Your task to perform on an android device: allow notifications from all sites in the chrome app Image 0: 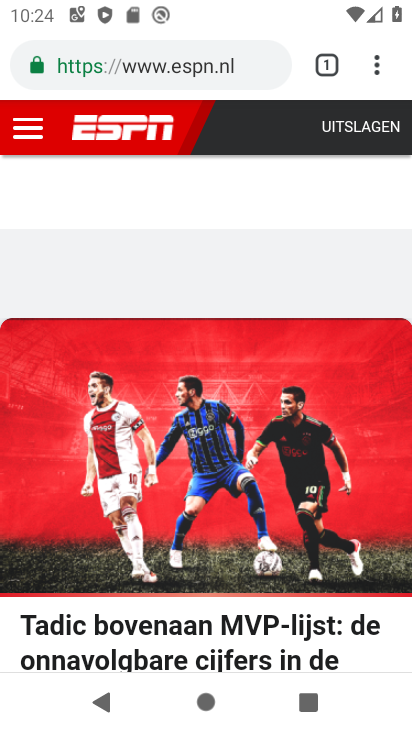
Step 0: press home button
Your task to perform on an android device: allow notifications from all sites in the chrome app Image 1: 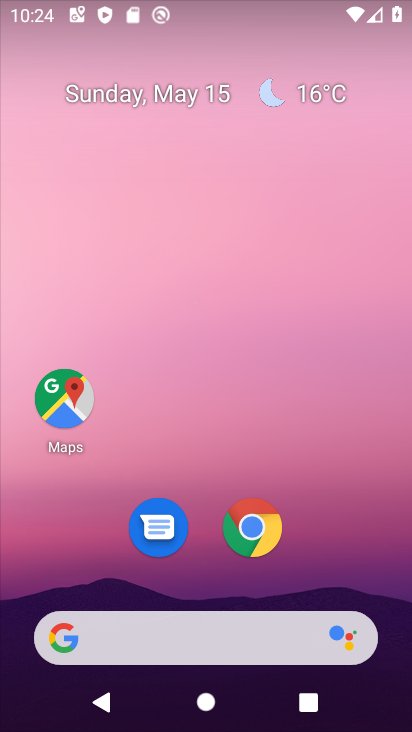
Step 1: click (264, 548)
Your task to perform on an android device: allow notifications from all sites in the chrome app Image 2: 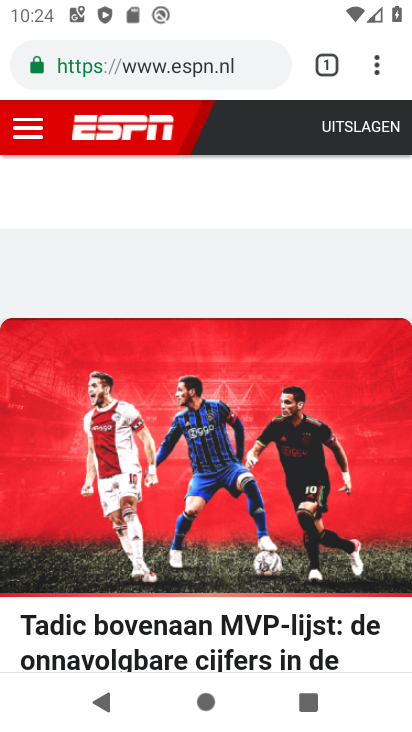
Step 2: click (376, 69)
Your task to perform on an android device: allow notifications from all sites in the chrome app Image 3: 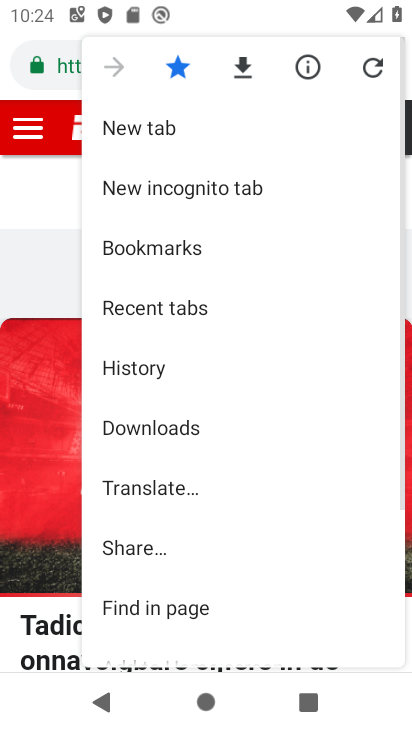
Step 3: drag from (227, 537) to (215, 120)
Your task to perform on an android device: allow notifications from all sites in the chrome app Image 4: 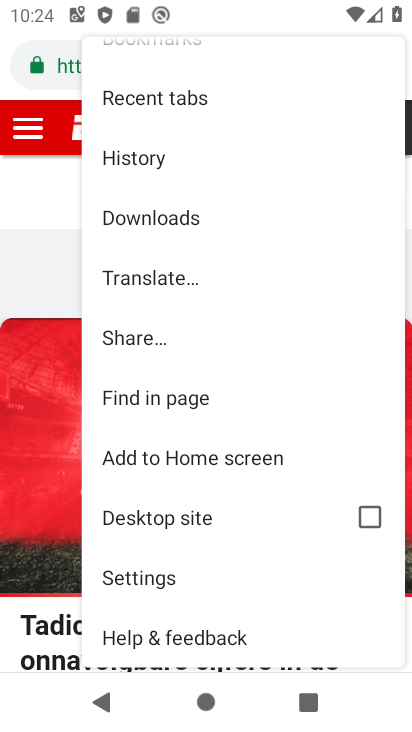
Step 4: click (154, 575)
Your task to perform on an android device: allow notifications from all sites in the chrome app Image 5: 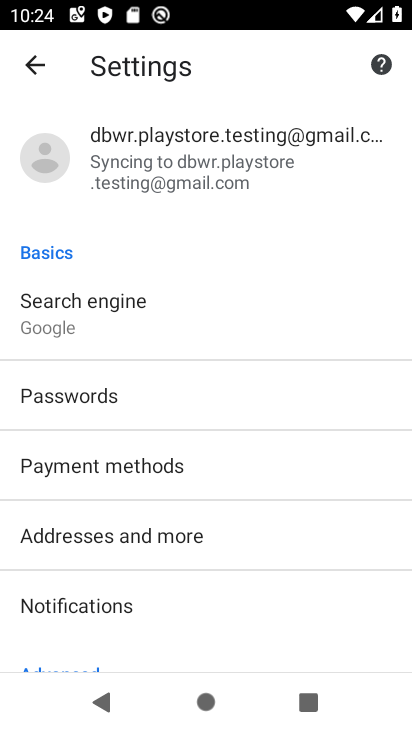
Step 5: drag from (218, 574) to (235, 226)
Your task to perform on an android device: allow notifications from all sites in the chrome app Image 6: 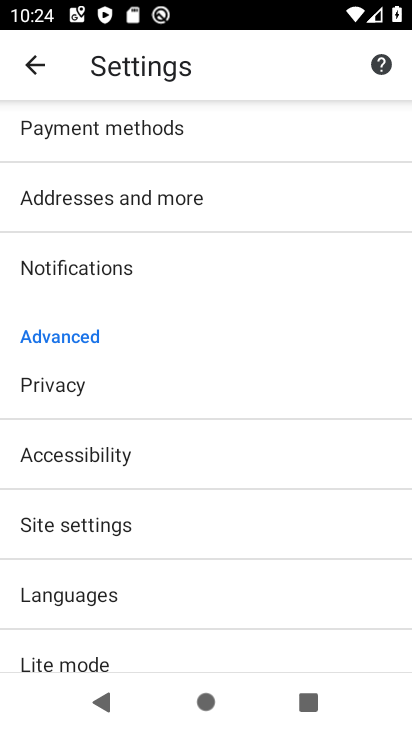
Step 6: click (85, 524)
Your task to perform on an android device: allow notifications from all sites in the chrome app Image 7: 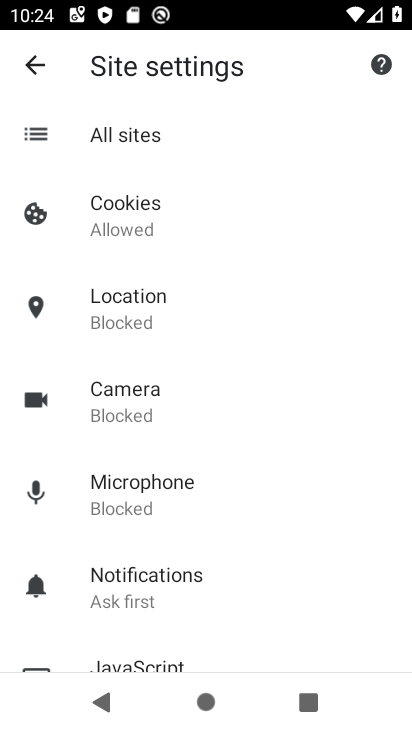
Step 7: drag from (277, 545) to (274, 239)
Your task to perform on an android device: allow notifications from all sites in the chrome app Image 8: 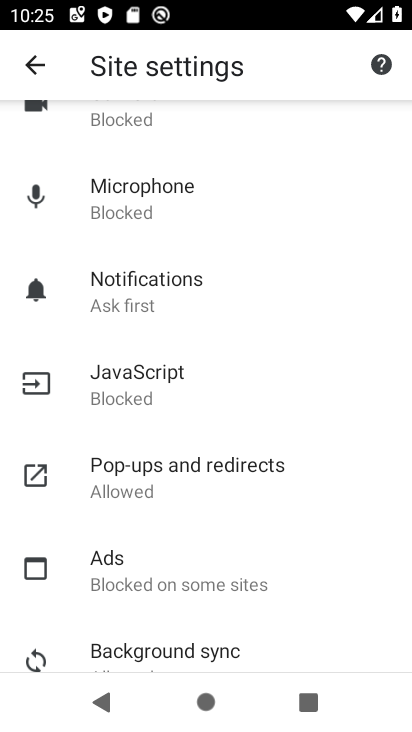
Step 8: click (112, 307)
Your task to perform on an android device: allow notifications from all sites in the chrome app Image 9: 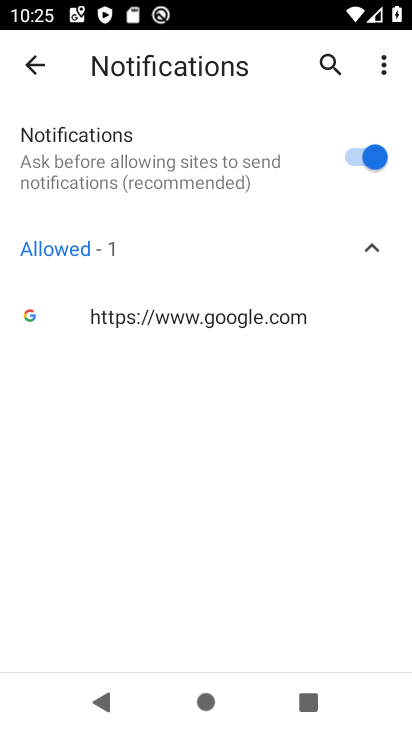
Step 9: task complete